Your task to perform on an android device: Go to settings Image 0: 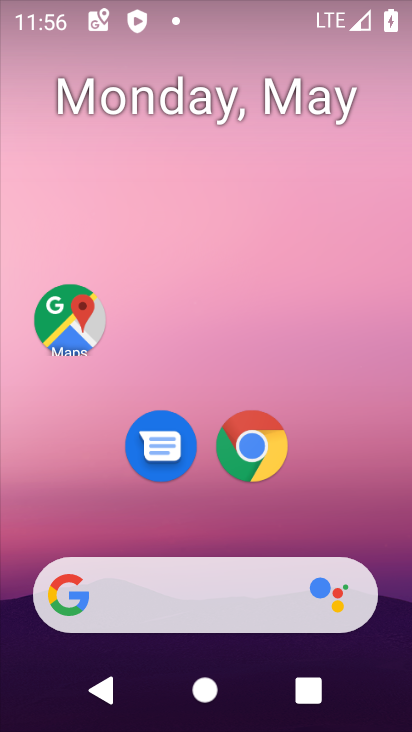
Step 0: drag from (340, 455) to (321, 90)
Your task to perform on an android device: Go to settings Image 1: 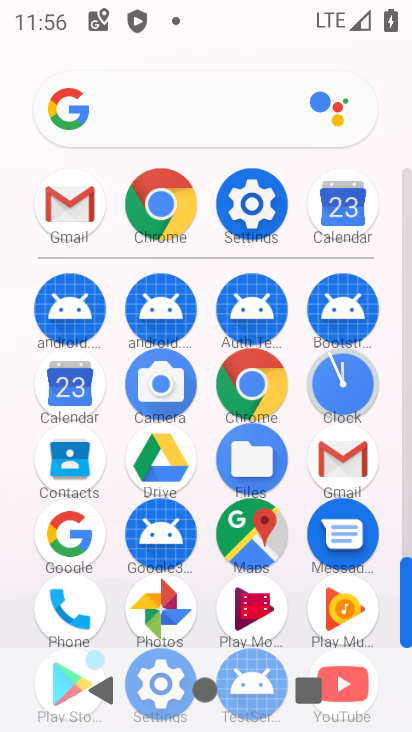
Step 1: click (254, 192)
Your task to perform on an android device: Go to settings Image 2: 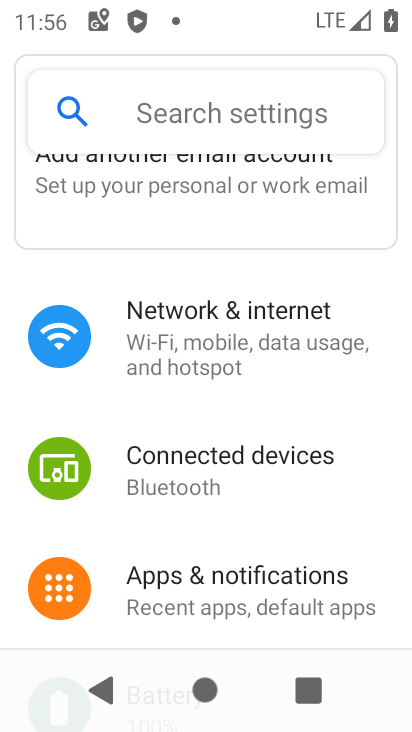
Step 2: task complete